Your task to perform on an android device: turn on sleep mode Image 0: 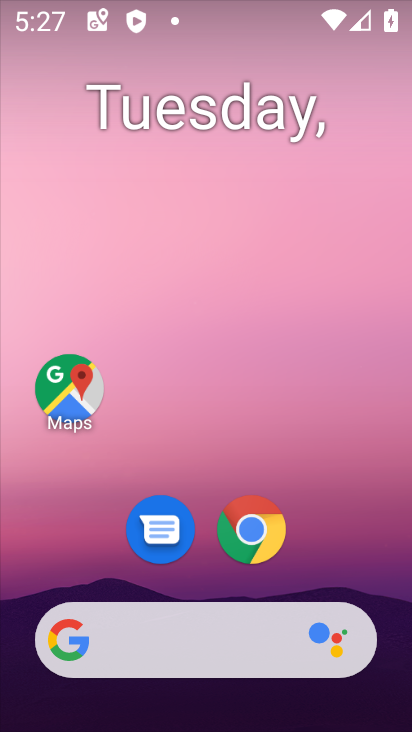
Step 0: drag from (343, 382) to (345, 210)
Your task to perform on an android device: turn on sleep mode Image 1: 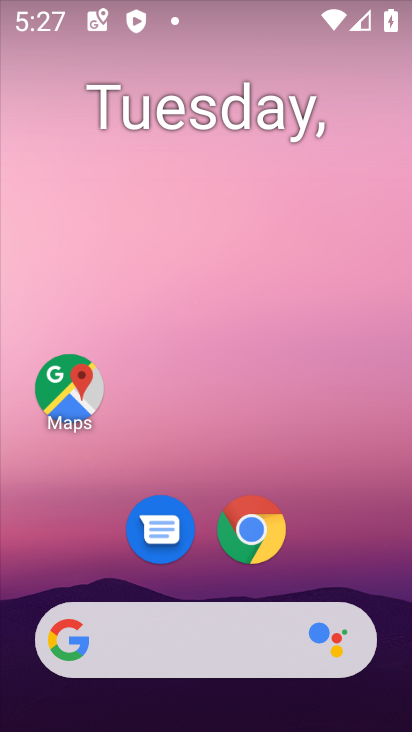
Step 1: drag from (371, 527) to (348, 128)
Your task to perform on an android device: turn on sleep mode Image 2: 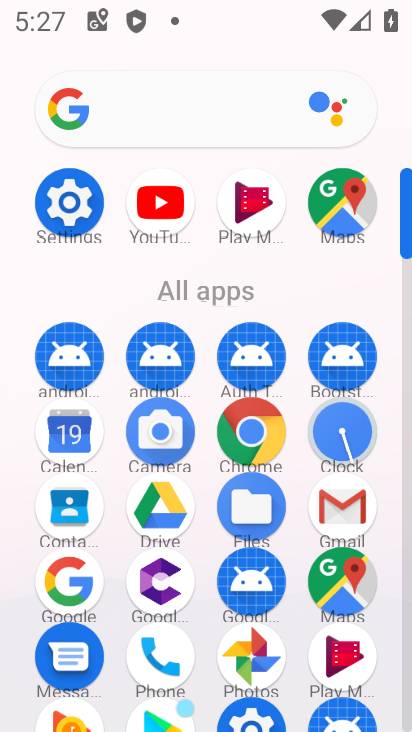
Step 2: click (62, 195)
Your task to perform on an android device: turn on sleep mode Image 3: 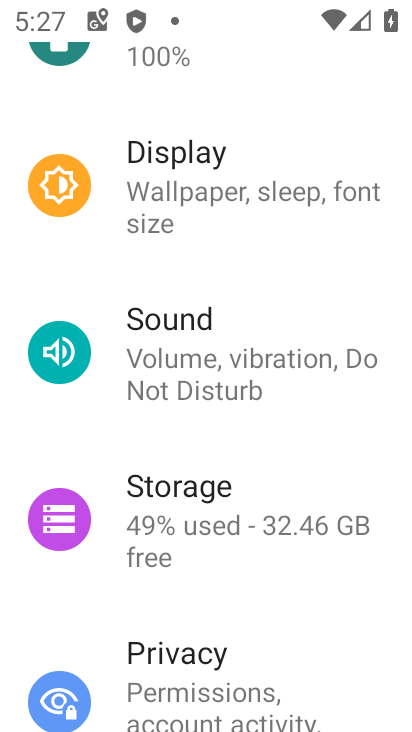
Step 3: click (196, 182)
Your task to perform on an android device: turn on sleep mode Image 4: 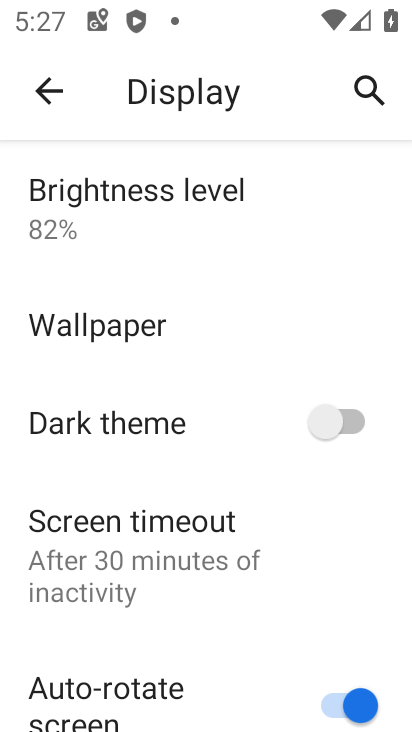
Step 4: click (80, 555)
Your task to perform on an android device: turn on sleep mode Image 5: 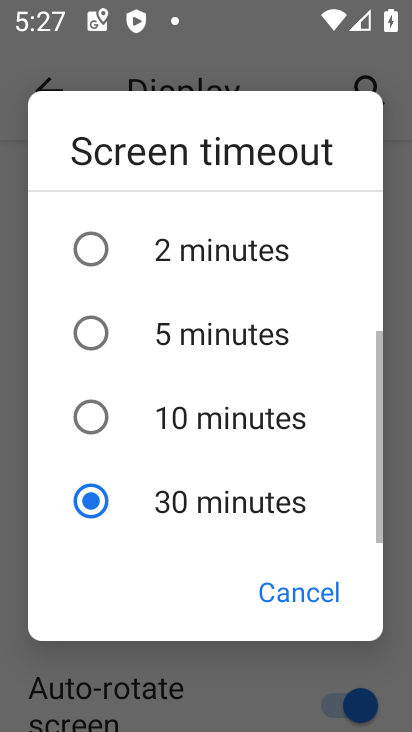
Step 5: task complete